Your task to perform on an android device: Go to Google Image 0: 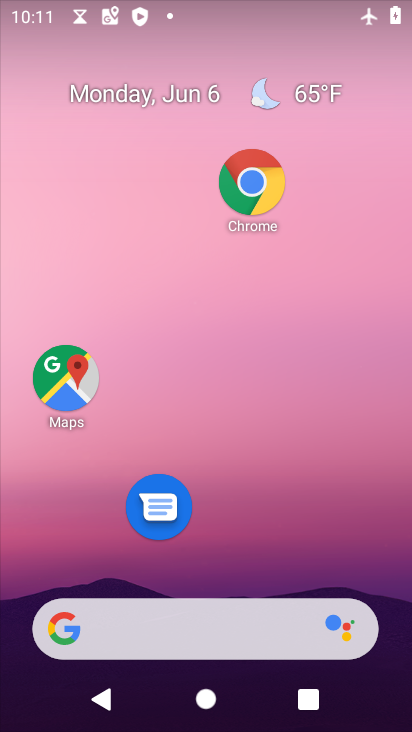
Step 0: drag from (254, 571) to (198, 269)
Your task to perform on an android device: Go to Google Image 1: 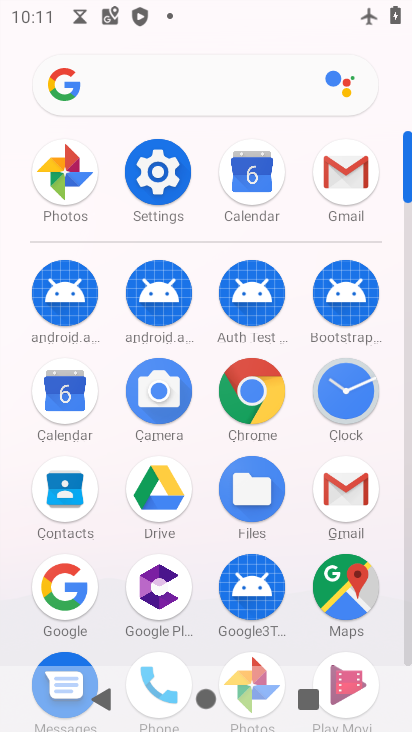
Step 1: click (57, 587)
Your task to perform on an android device: Go to Google Image 2: 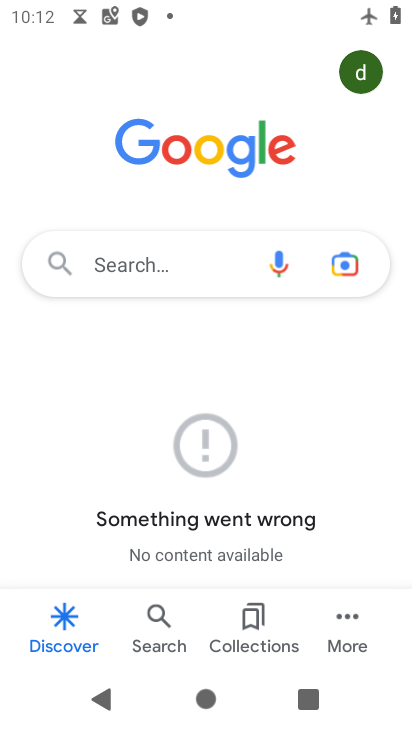
Step 2: task complete